Your task to perform on an android device: Go to Amazon Image 0: 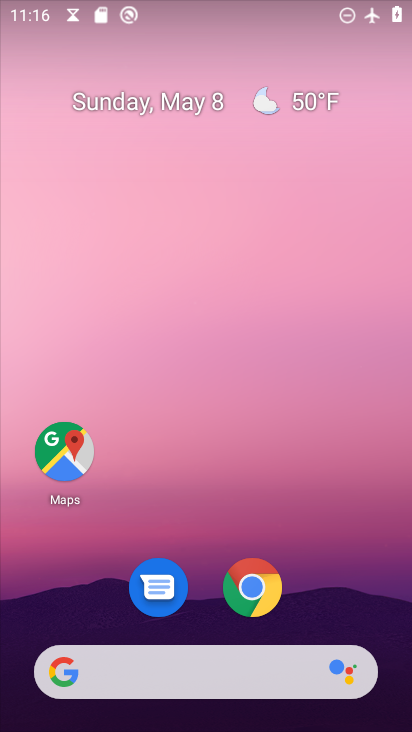
Step 0: click (268, 582)
Your task to perform on an android device: Go to Amazon Image 1: 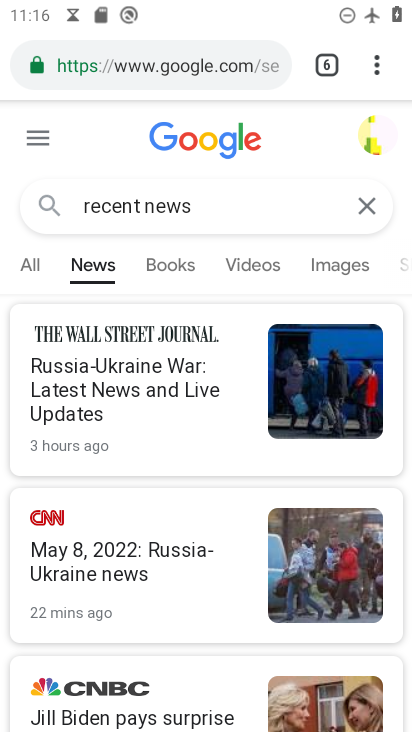
Step 1: click (330, 65)
Your task to perform on an android device: Go to Amazon Image 2: 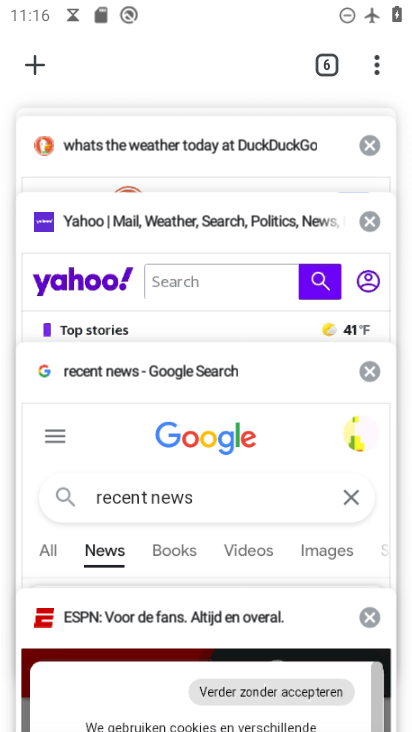
Step 2: click (38, 61)
Your task to perform on an android device: Go to Amazon Image 3: 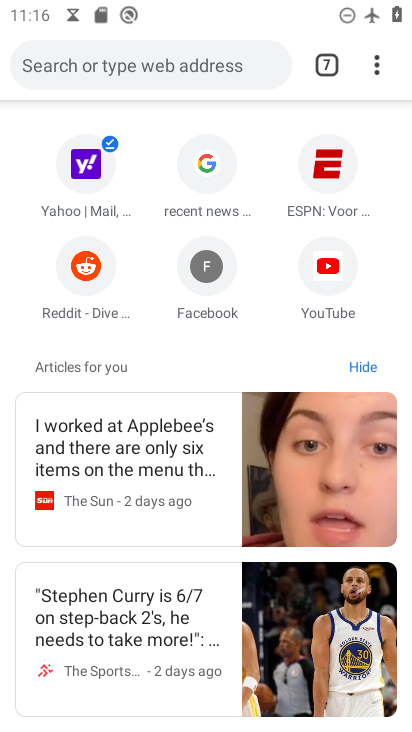
Step 3: click (182, 64)
Your task to perform on an android device: Go to Amazon Image 4: 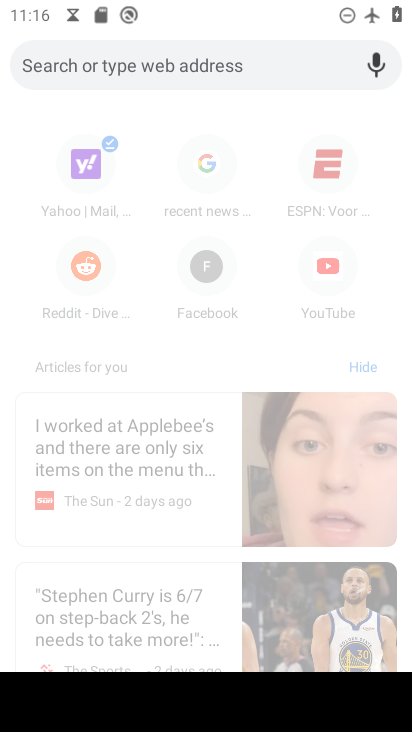
Step 4: type "amazon"
Your task to perform on an android device: Go to Amazon Image 5: 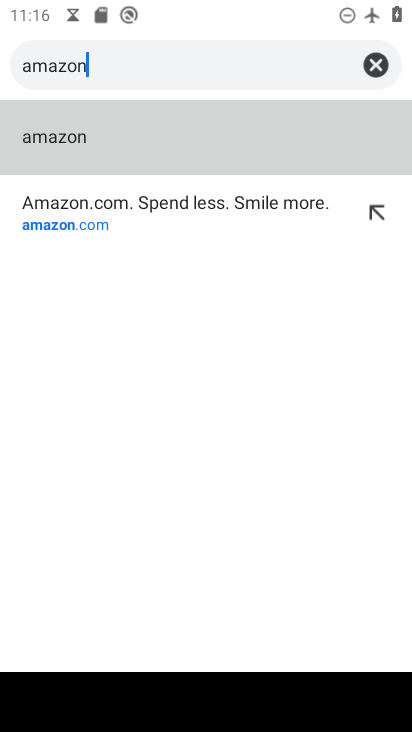
Step 5: click (64, 220)
Your task to perform on an android device: Go to Amazon Image 6: 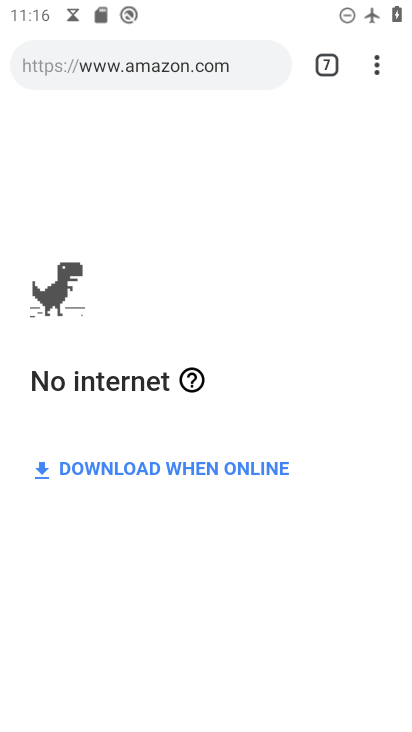
Step 6: task complete